Your task to perform on an android device: Go to location settings Image 0: 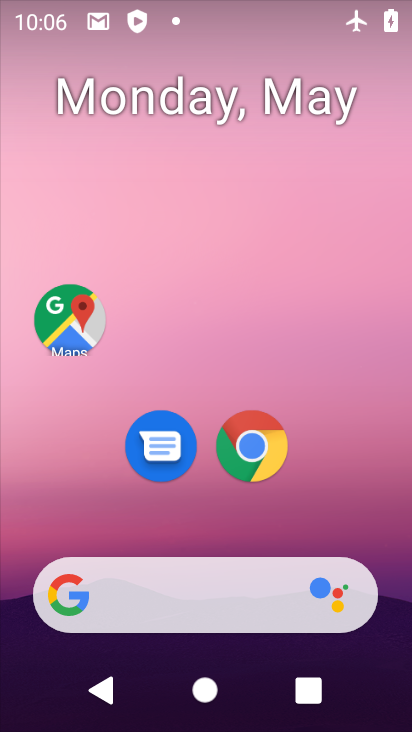
Step 0: drag from (347, 470) to (320, 58)
Your task to perform on an android device: Go to location settings Image 1: 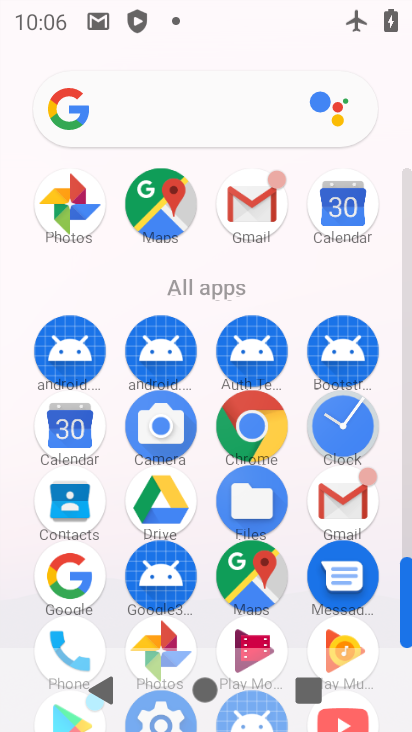
Step 1: drag from (404, 612) to (400, 683)
Your task to perform on an android device: Go to location settings Image 2: 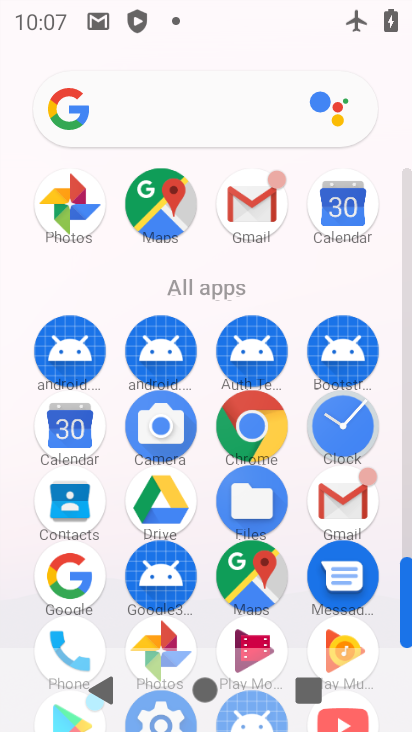
Step 2: drag from (404, 606) to (410, 409)
Your task to perform on an android device: Go to location settings Image 3: 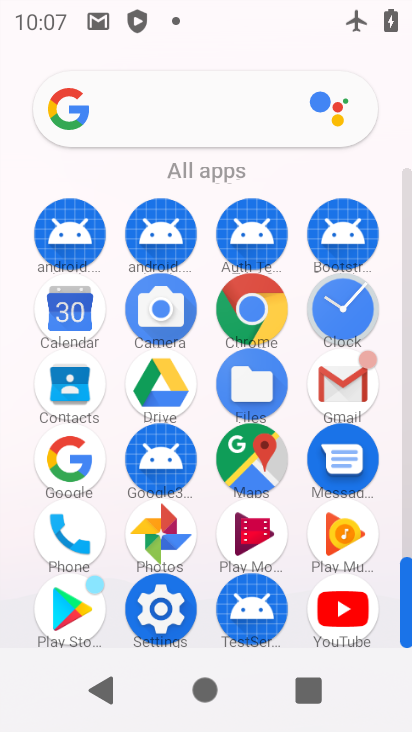
Step 3: click (186, 585)
Your task to perform on an android device: Go to location settings Image 4: 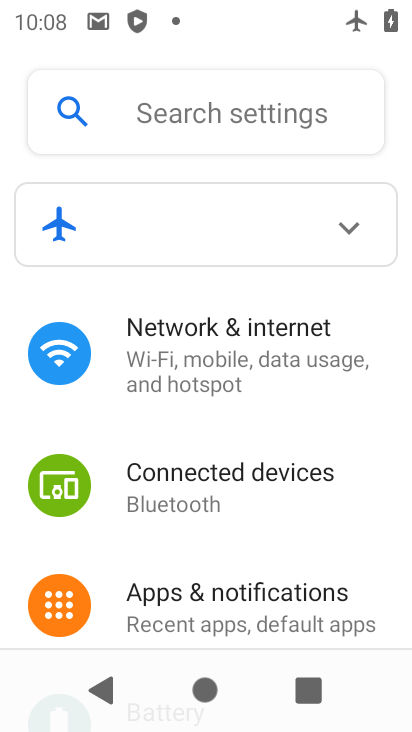
Step 4: drag from (214, 578) to (220, 92)
Your task to perform on an android device: Go to location settings Image 5: 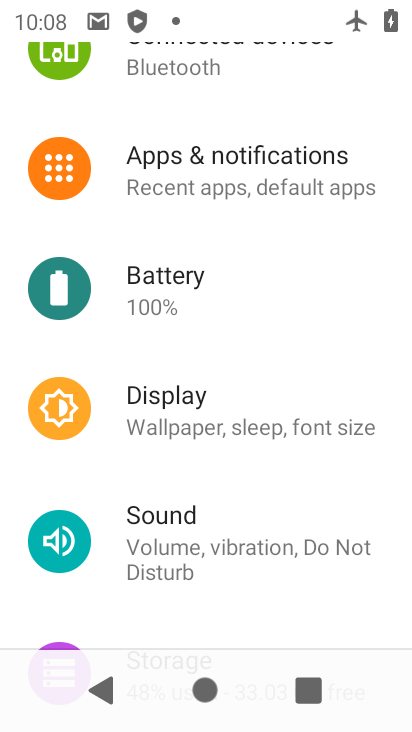
Step 5: drag from (178, 515) to (326, 19)
Your task to perform on an android device: Go to location settings Image 6: 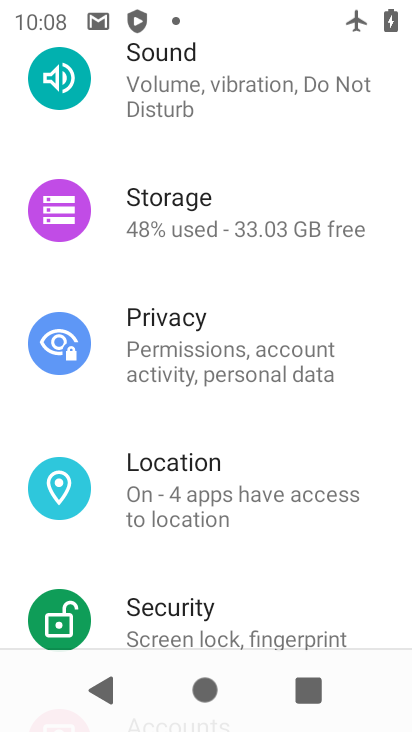
Step 6: click (168, 506)
Your task to perform on an android device: Go to location settings Image 7: 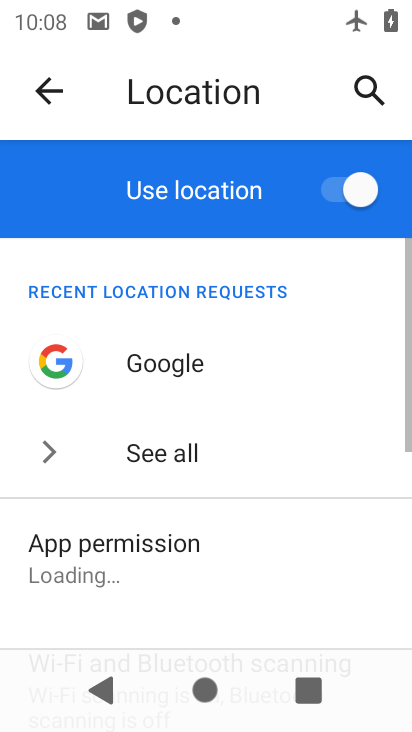
Step 7: task complete